Your task to perform on an android device: Go to location settings Image 0: 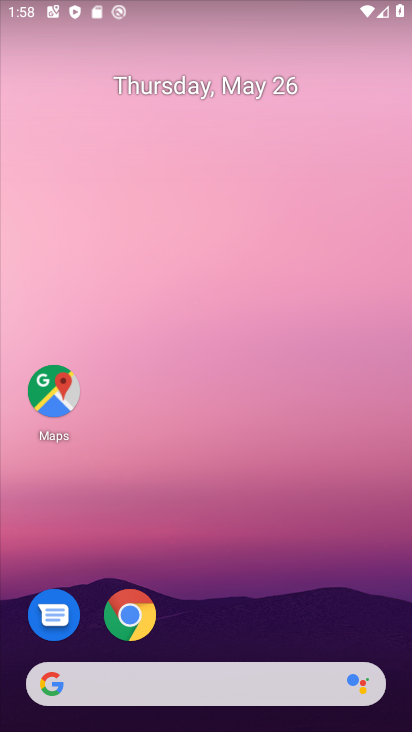
Step 0: drag from (211, 611) to (218, 143)
Your task to perform on an android device: Go to location settings Image 1: 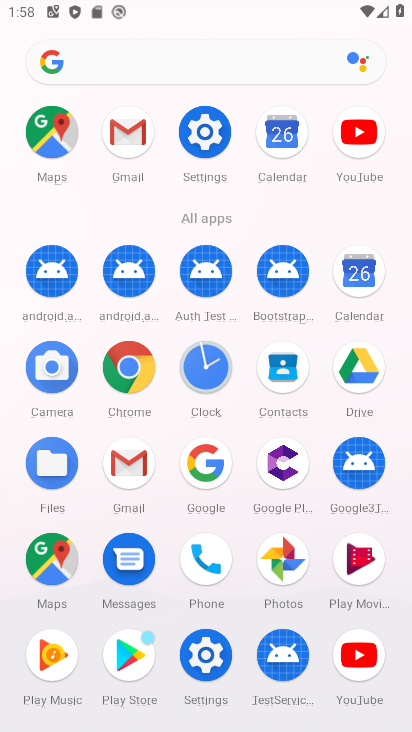
Step 1: click (203, 126)
Your task to perform on an android device: Go to location settings Image 2: 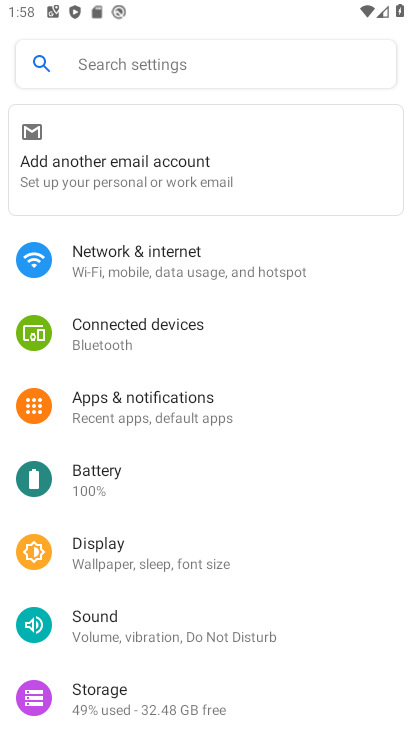
Step 2: drag from (149, 665) to (210, 283)
Your task to perform on an android device: Go to location settings Image 3: 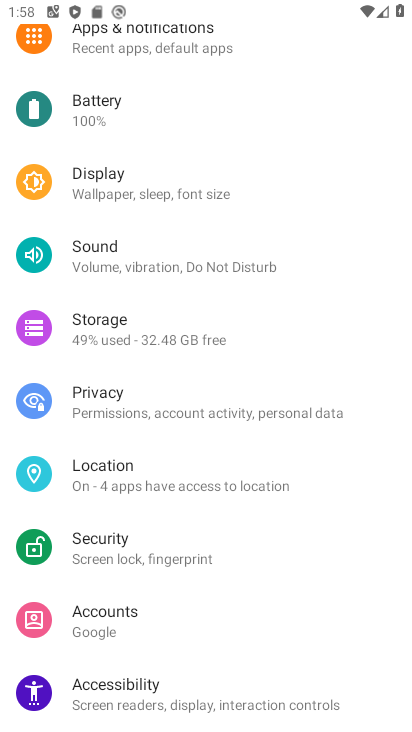
Step 3: click (99, 465)
Your task to perform on an android device: Go to location settings Image 4: 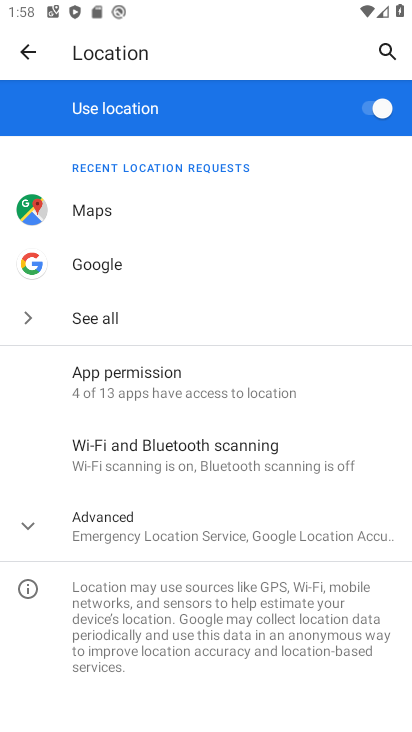
Step 4: click (39, 523)
Your task to perform on an android device: Go to location settings Image 5: 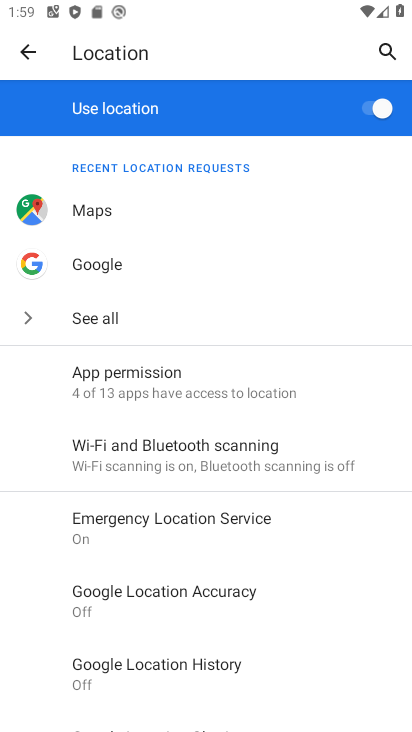
Step 5: task complete